Your task to perform on an android device: Open the map Image 0: 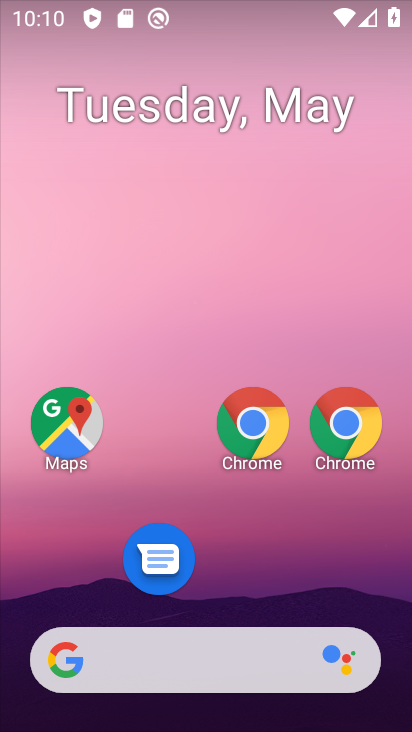
Step 0: drag from (227, 729) to (117, 0)
Your task to perform on an android device: Open the map Image 1: 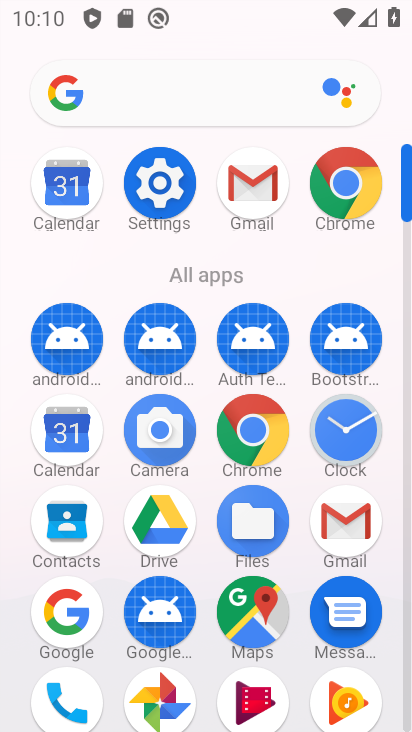
Step 1: click (244, 611)
Your task to perform on an android device: Open the map Image 2: 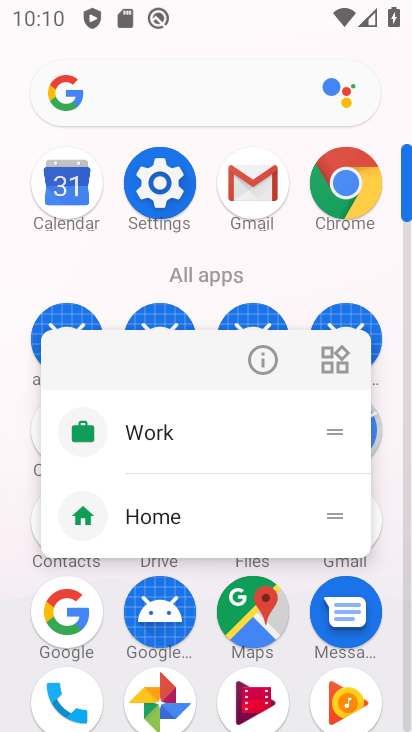
Step 2: click (265, 256)
Your task to perform on an android device: Open the map Image 3: 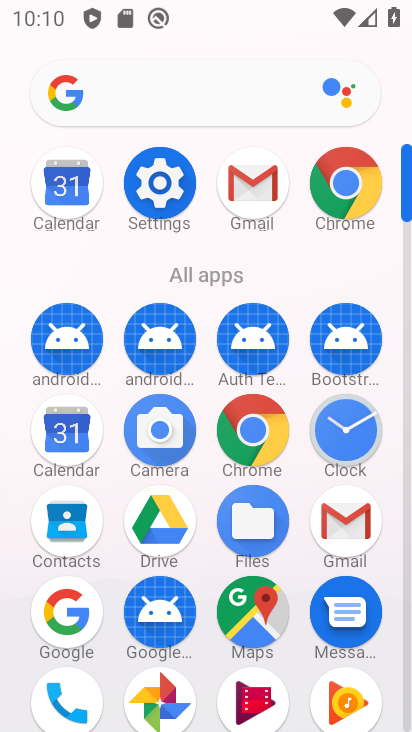
Step 3: click (260, 609)
Your task to perform on an android device: Open the map Image 4: 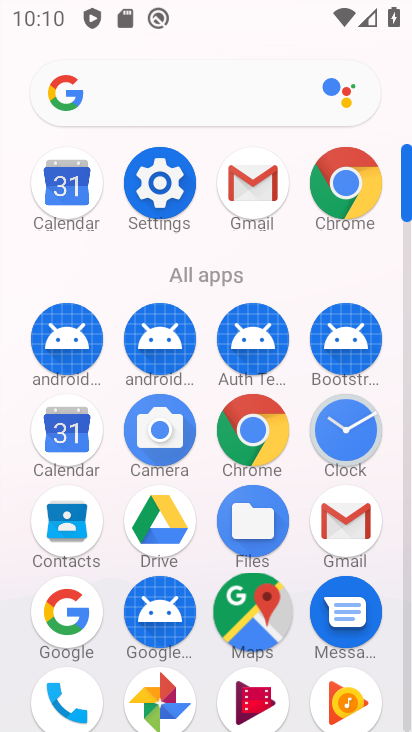
Step 4: click (256, 607)
Your task to perform on an android device: Open the map Image 5: 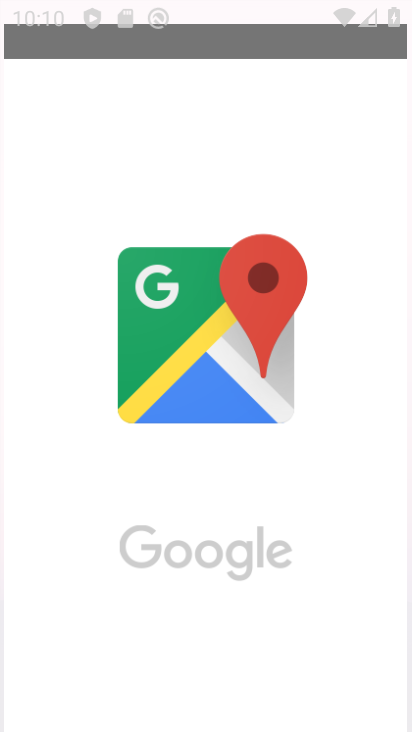
Step 5: click (255, 606)
Your task to perform on an android device: Open the map Image 6: 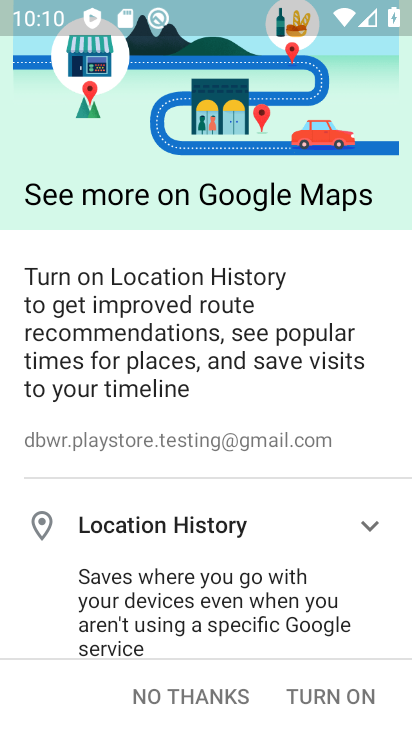
Step 6: task complete